Your task to perform on an android device: change the clock display to digital Image 0: 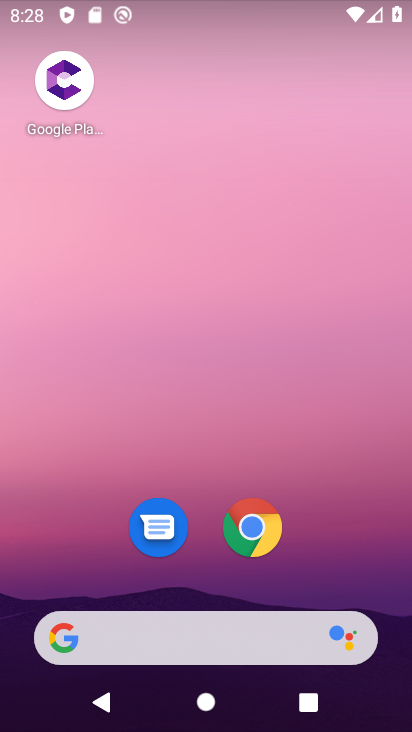
Step 0: drag from (372, 589) to (384, 30)
Your task to perform on an android device: change the clock display to digital Image 1: 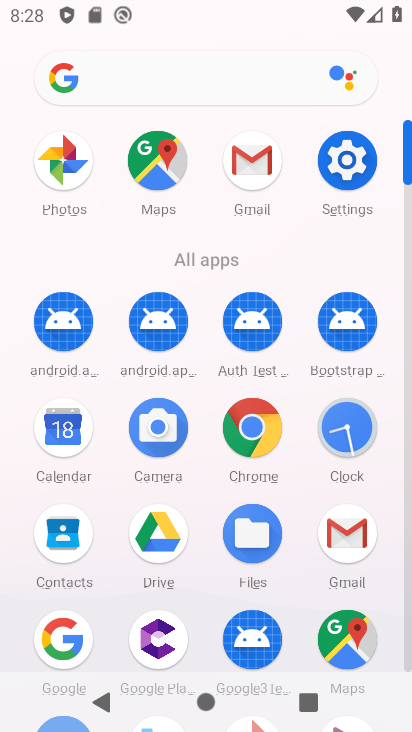
Step 1: click (341, 426)
Your task to perform on an android device: change the clock display to digital Image 2: 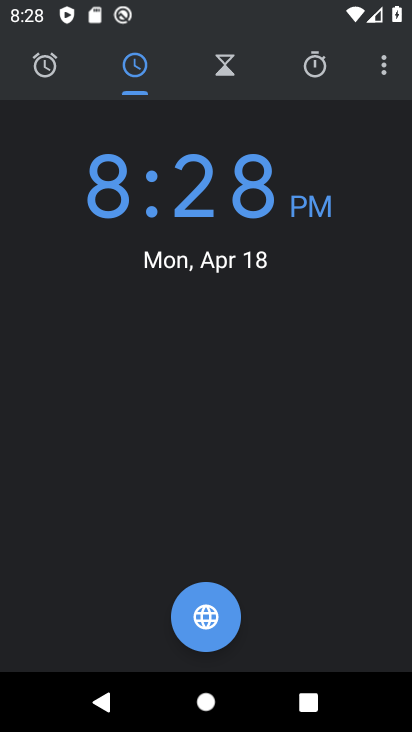
Step 2: click (384, 69)
Your task to perform on an android device: change the clock display to digital Image 3: 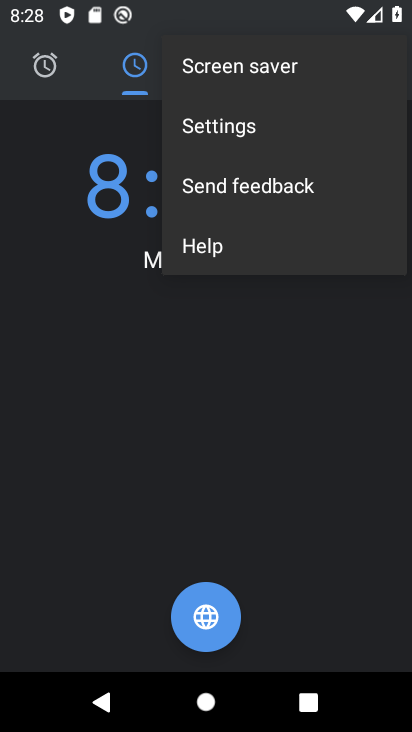
Step 3: click (219, 126)
Your task to perform on an android device: change the clock display to digital Image 4: 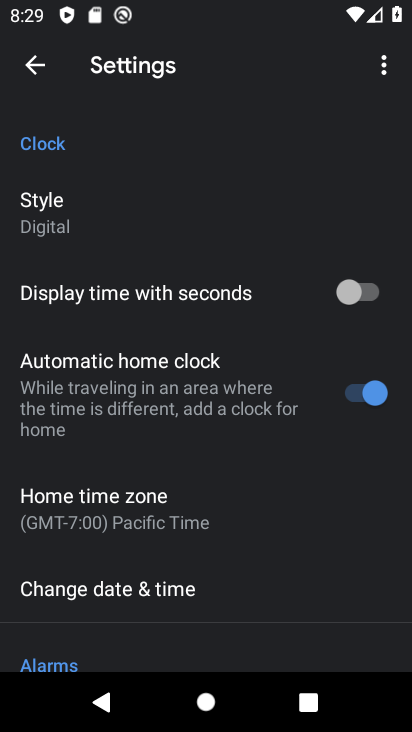
Step 4: task complete